Your task to perform on an android device: open app "Spotify: Music and Podcasts" (install if not already installed) Image 0: 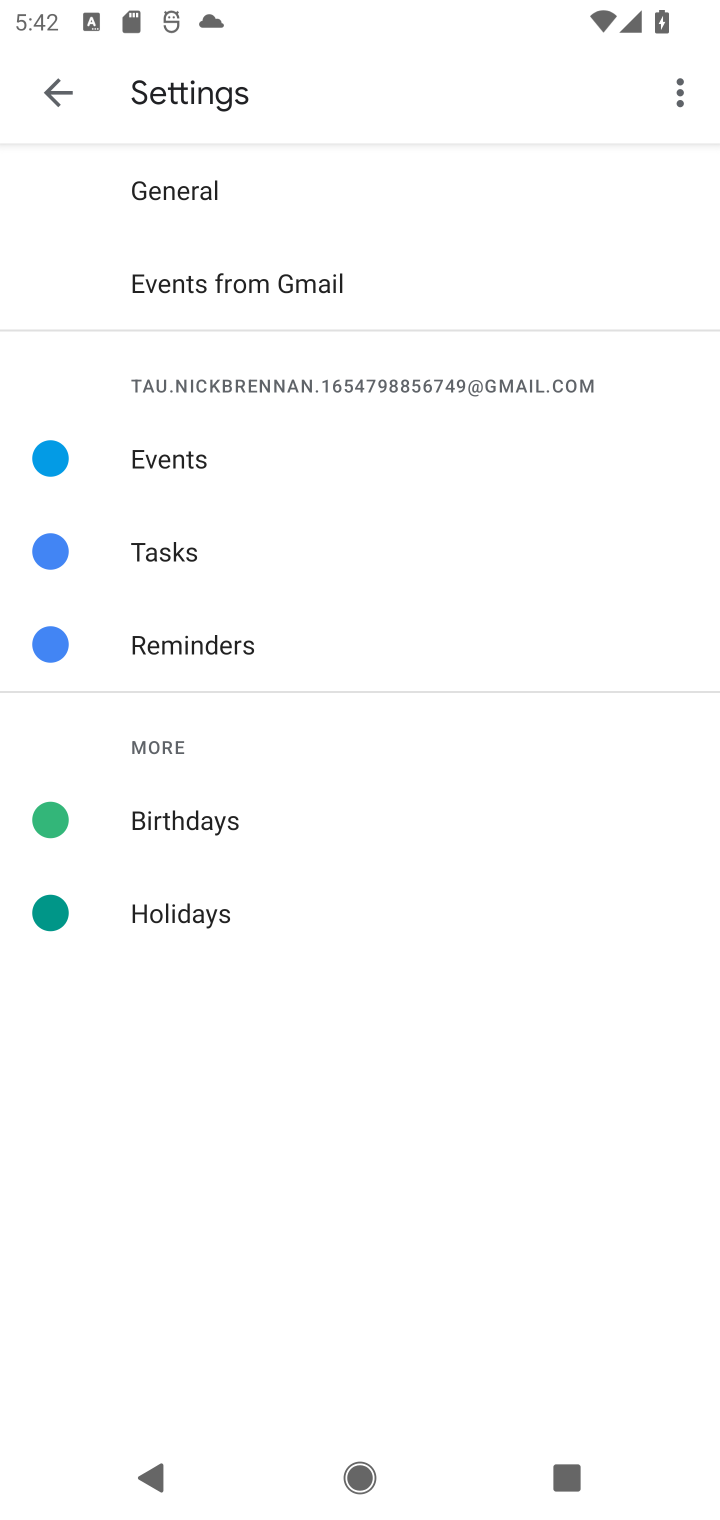
Step 0: press home button
Your task to perform on an android device: open app "Spotify: Music and Podcasts" (install if not already installed) Image 1: 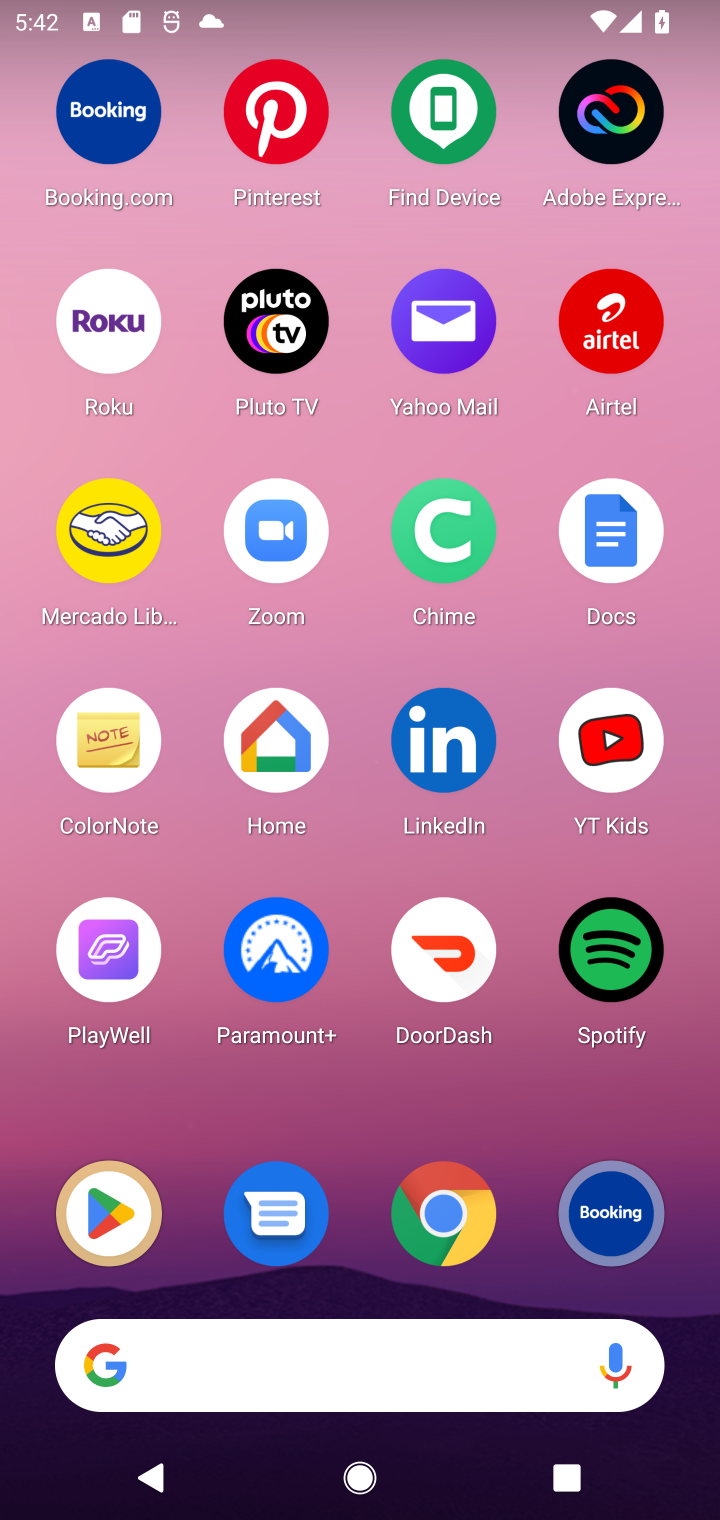
Step 1: drag from (346, 1111) to (374, 80)
Your task to perform on an android device: open app "Spotify: Music and Podcasts" (install if not already installed) Image 2: 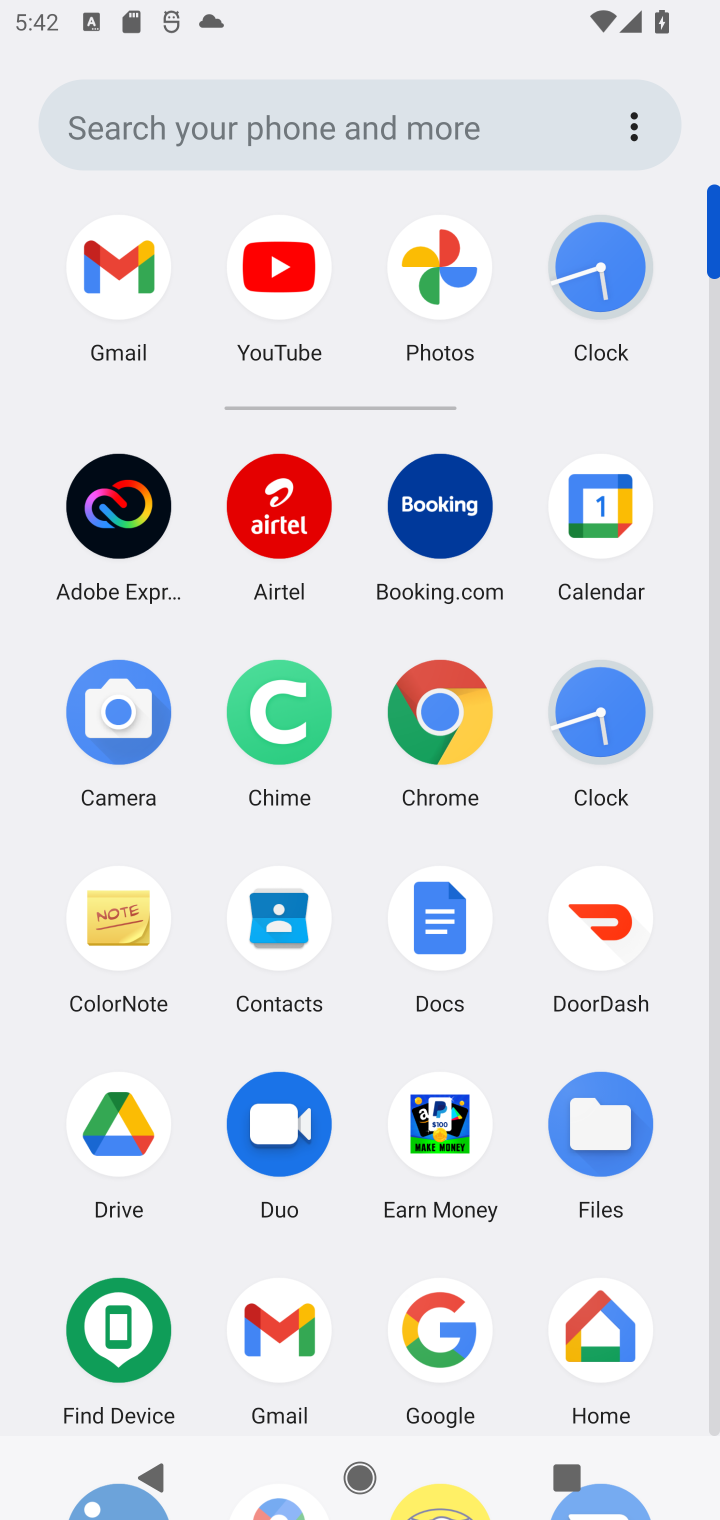
Step 2: drag from (535, 1263) to (532, 430)
Your task to perform on an android device: open app "Spotify: Music and Podcasts" (install if not already installed) Image 3: 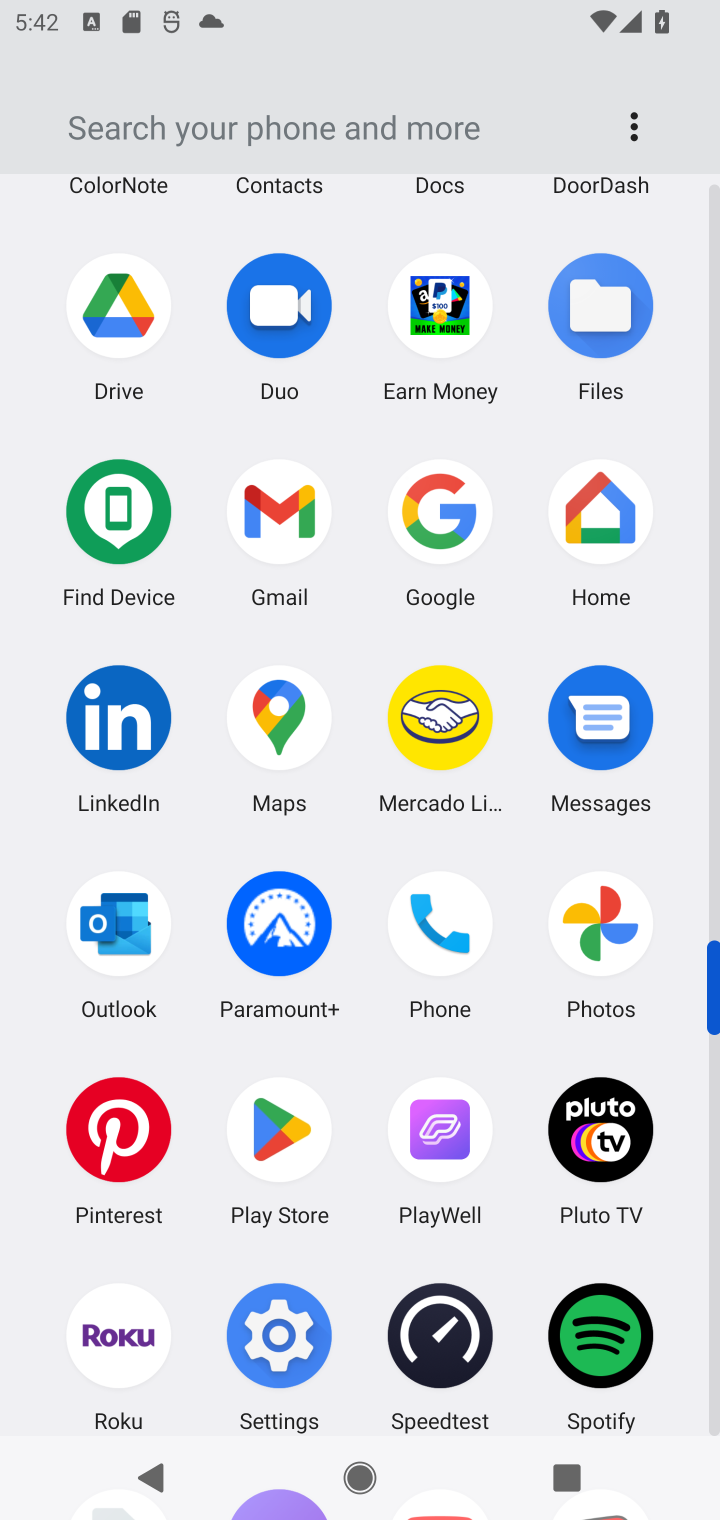
Step 3: click (292, 1165)
Your task to perform on an android device: open app "Spotify: Music and Podcasts" (install if not already installed) Image 4: 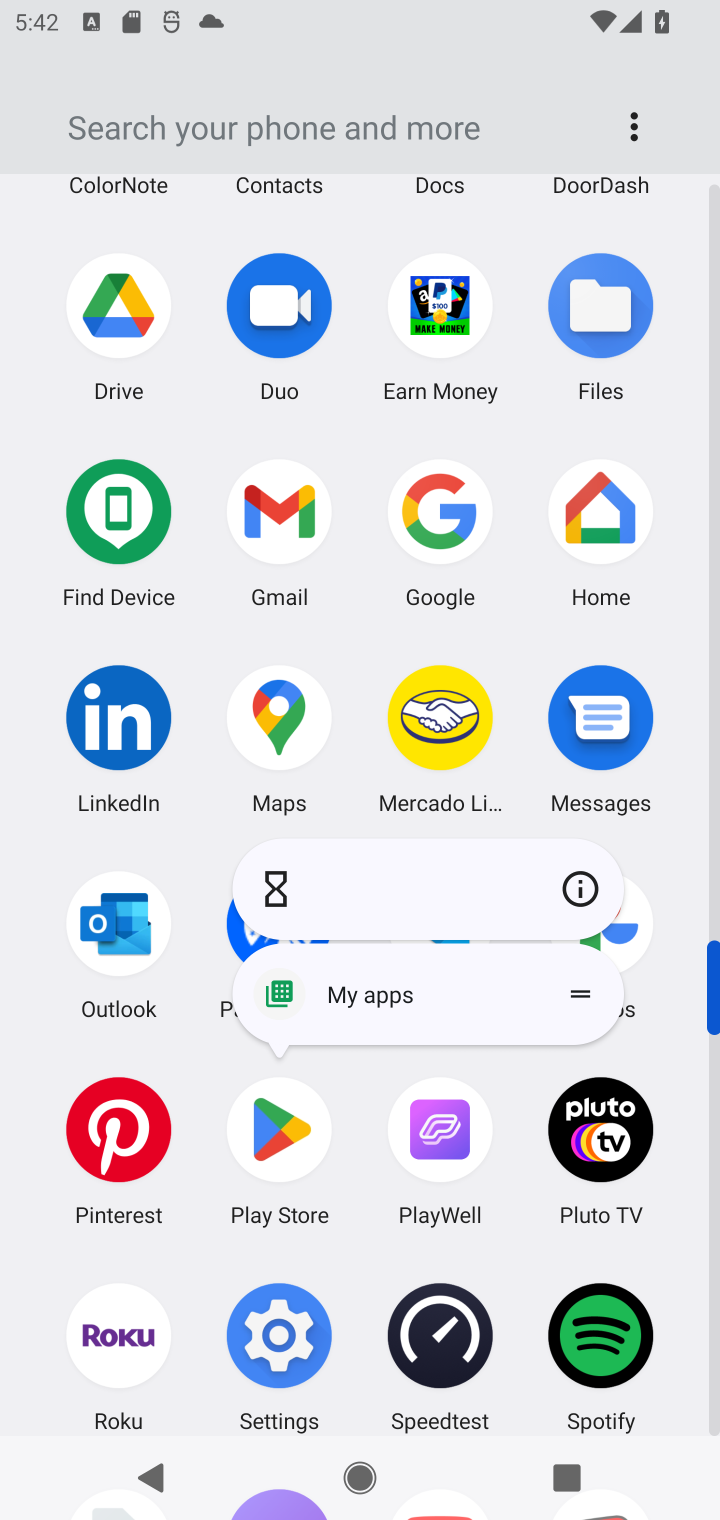
Step 4: click (290, 1147)
Your task to perform on an android device: open app "Spotify: Music and Podcasts" (install if not already installed) Image 5: 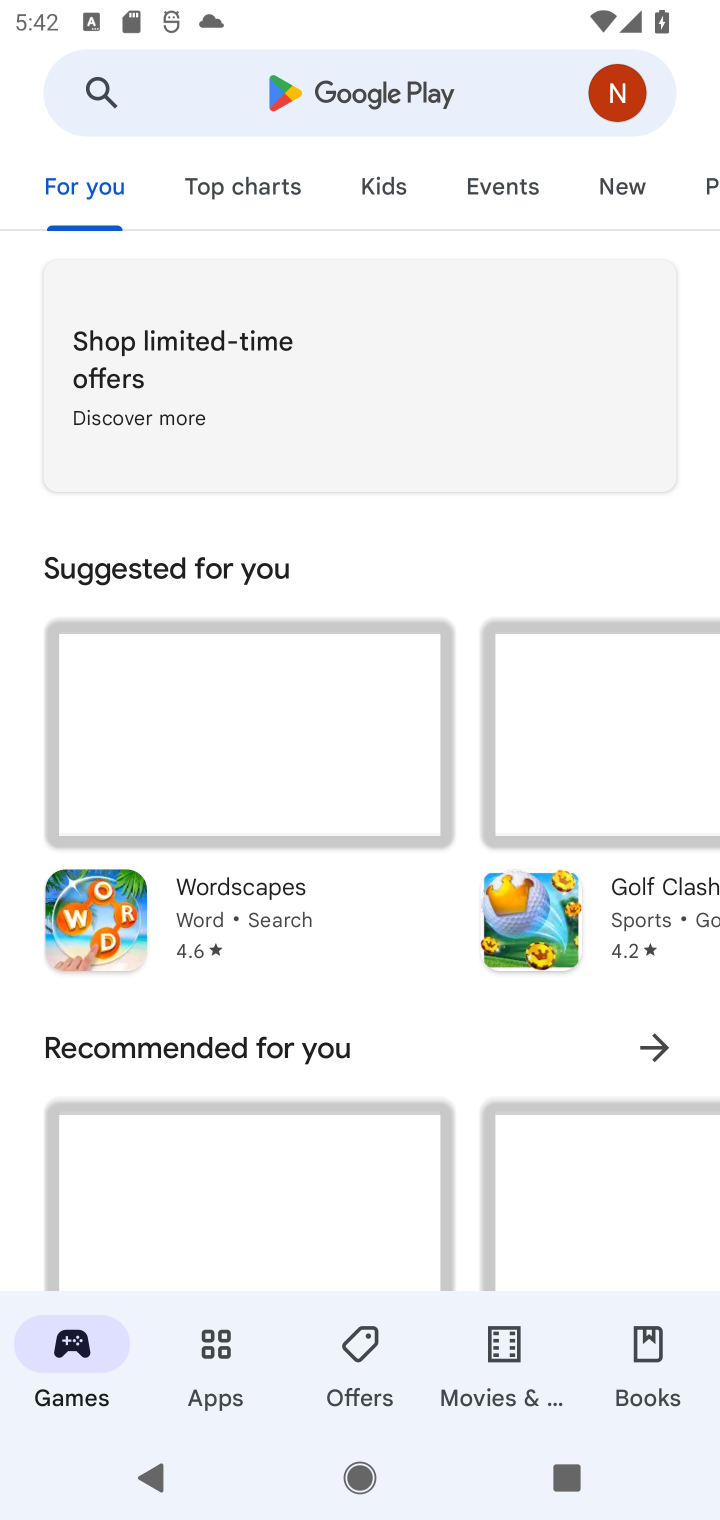
Step 5: click (371, 100)
Your task to perform on an android device: open app "Spotify: Music and Podcasts" (install if not already installed) Image 6: 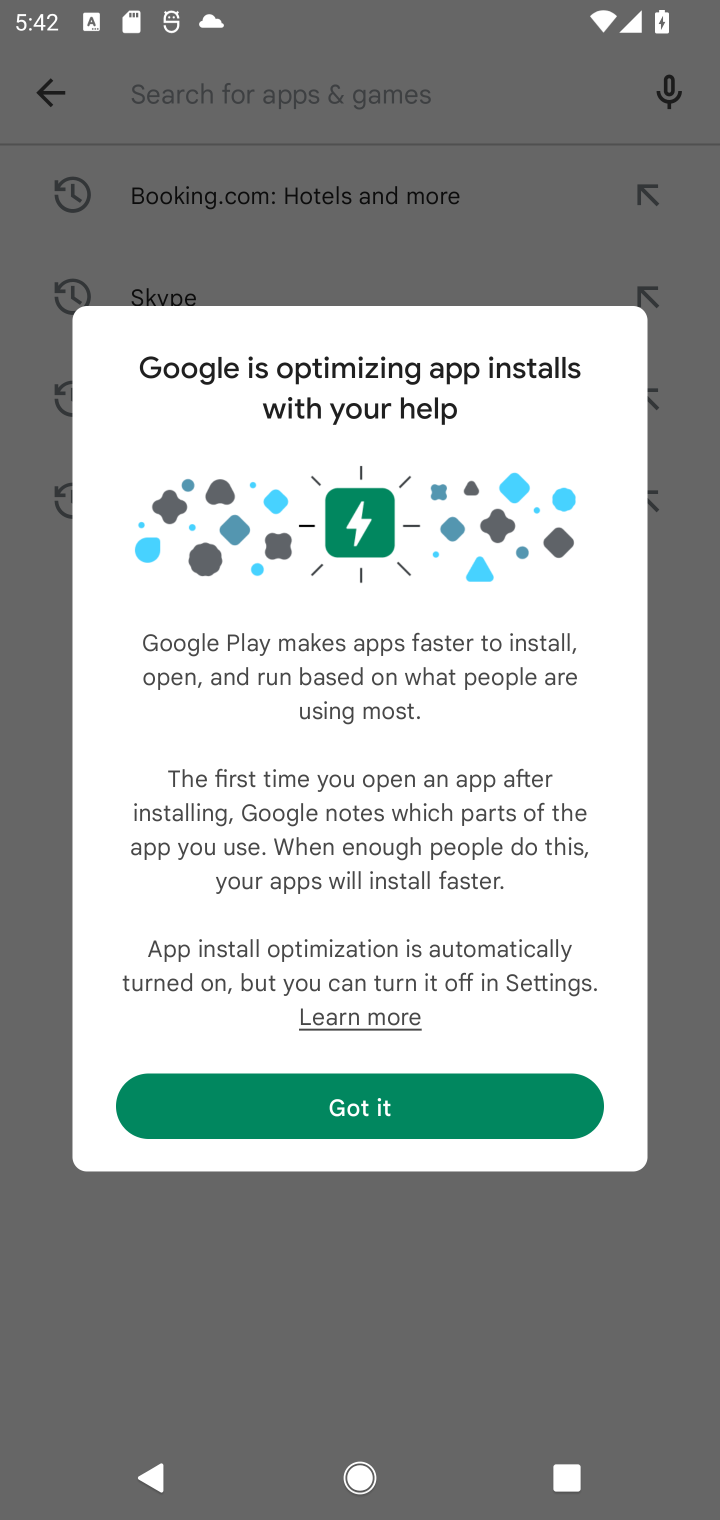
Step 6: click (412, 87)
Your task to perform on an android device: open app "Spotify: Music and Podcasts" (install if not already installed) Image 7: 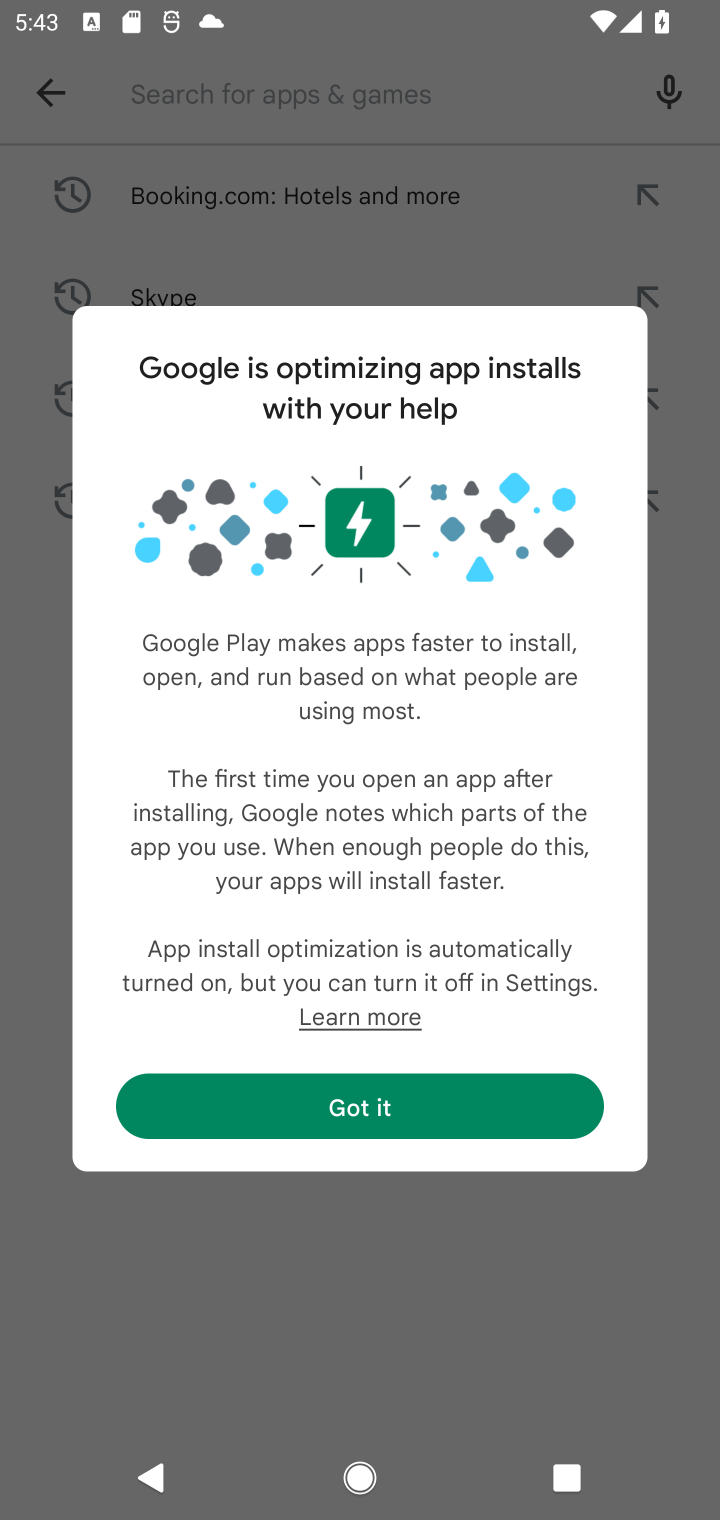
Step 7: type "Spotify: Music and Podcasts"
Your task to perform on an android device: open app "Spotify: Music and Podcasts" (install if not already installed) Image 8: 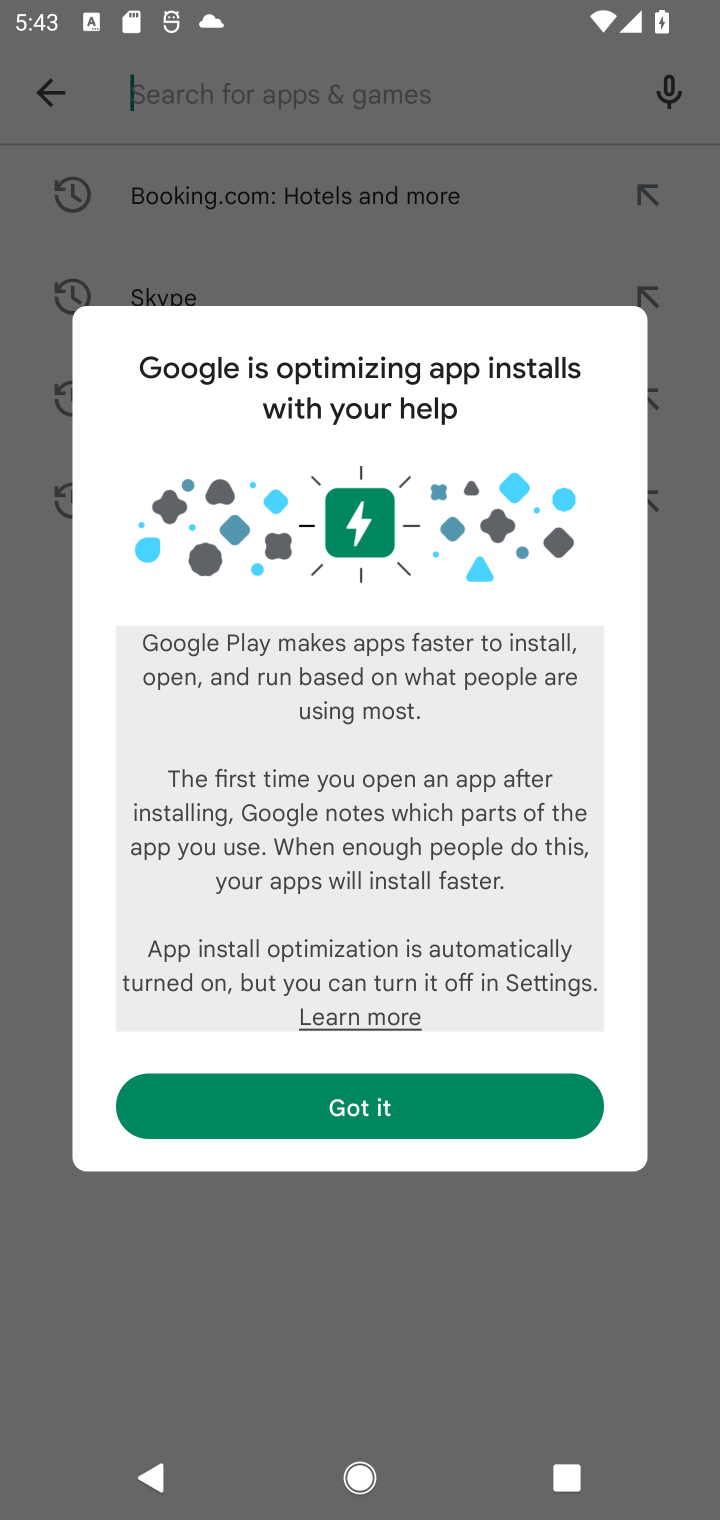
Step 8: click (433, 1135)
Your task to perform on an android device: open app "Spotify: Music and Podcasts" (install if not already installed) Image 9: 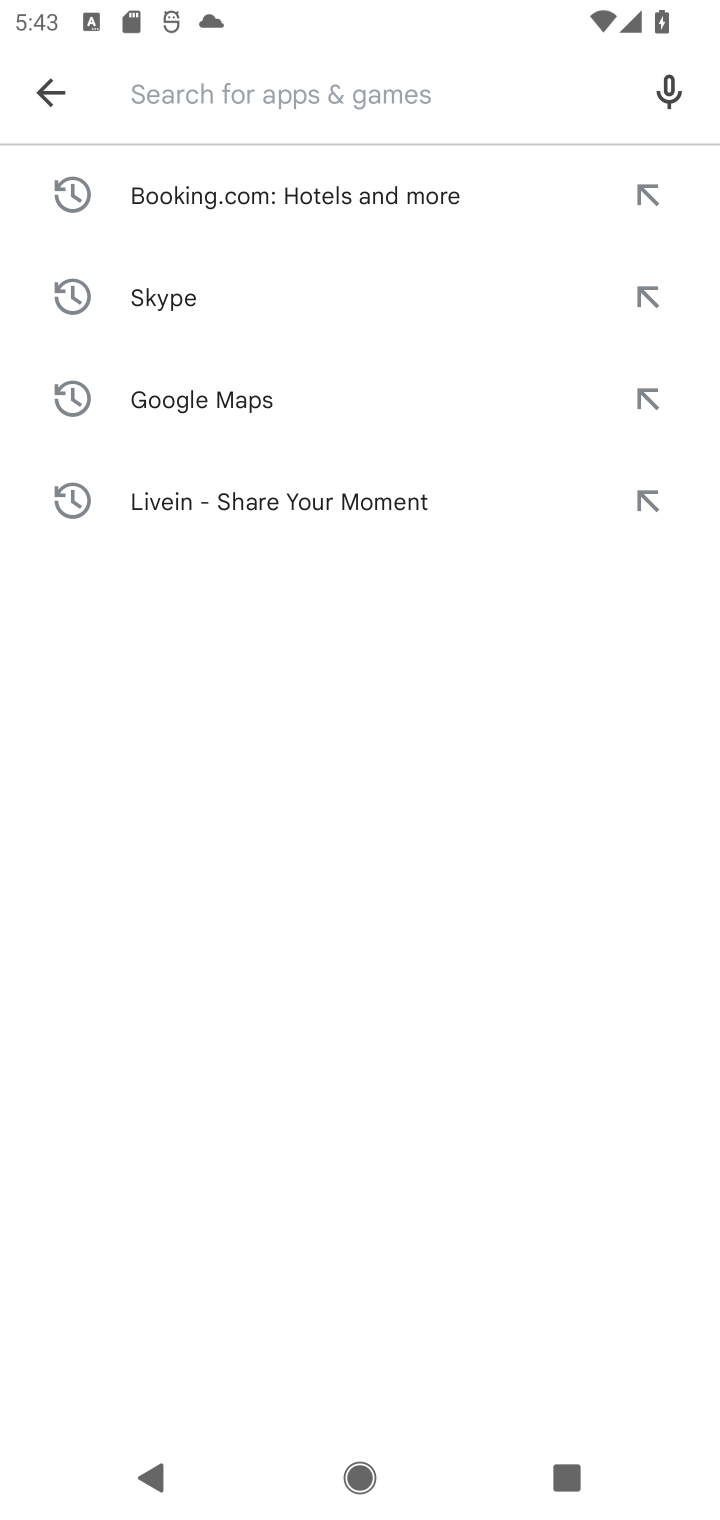
Step 9: click (375, 90)
Your task to perform on an android device: open app "Spotify: Music and Podcasts" (install if not already installed) Image 10: 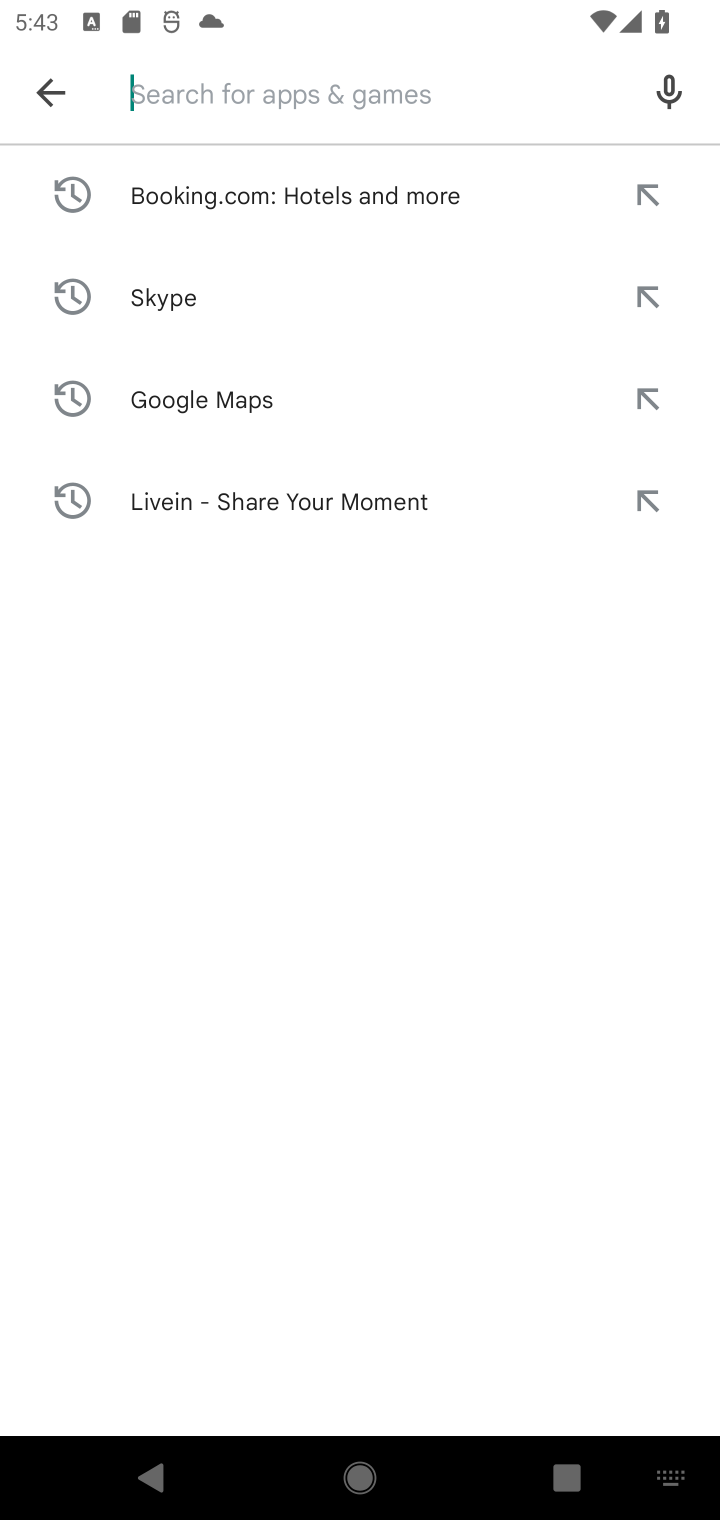
Step 10: type "Spotify: Music and Podcasts"
Your task to perform on an android device: open app "Spotify: Music and Podcasts" (install if not already installed) Image 11: 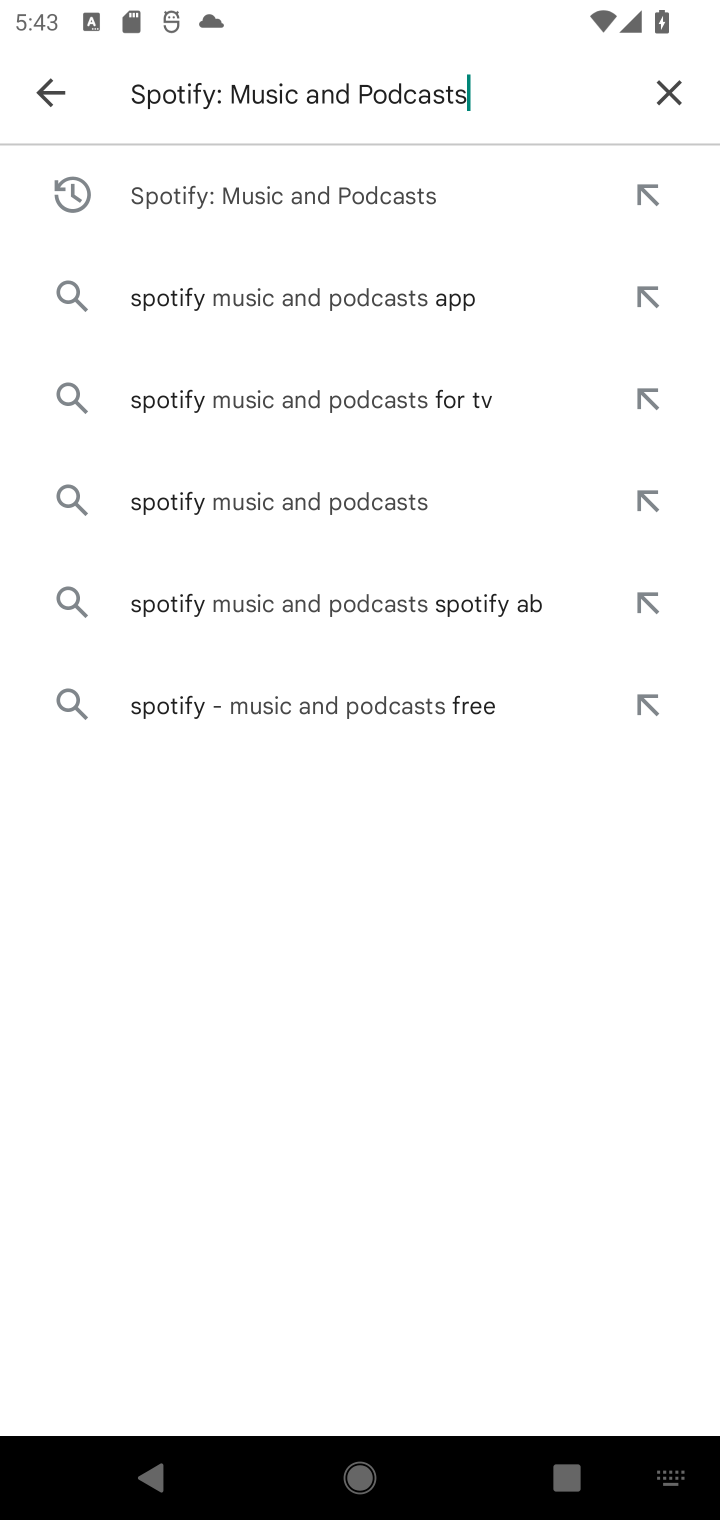
Step 11: press enter
Your task to perform on an android device: open app "Spotify: Music and Podcasts" (install if not already installed) Image 12: 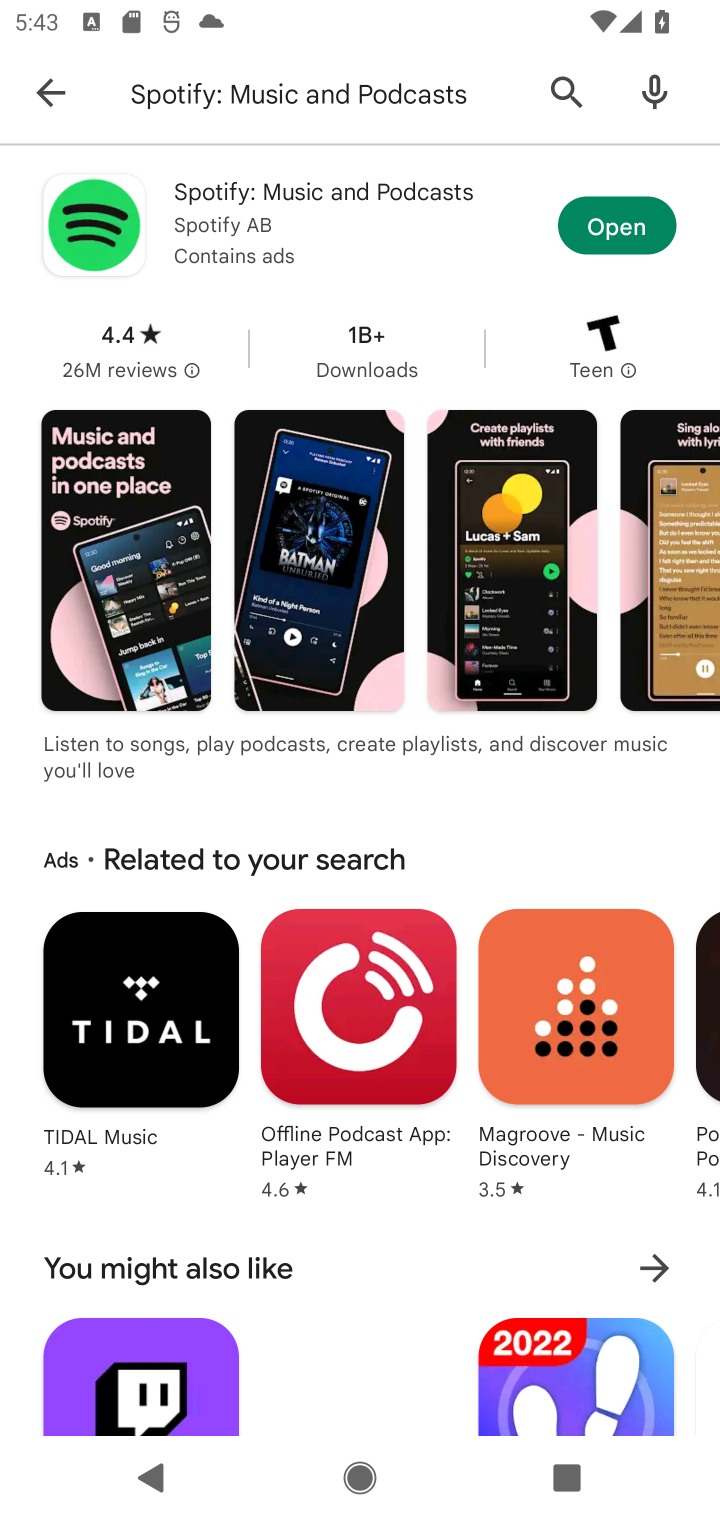
Step 12: click (648, 226)
Your task to perform on an android device: open app "Spotify: Music and Podcasts" (install if not already installed) Image 13: 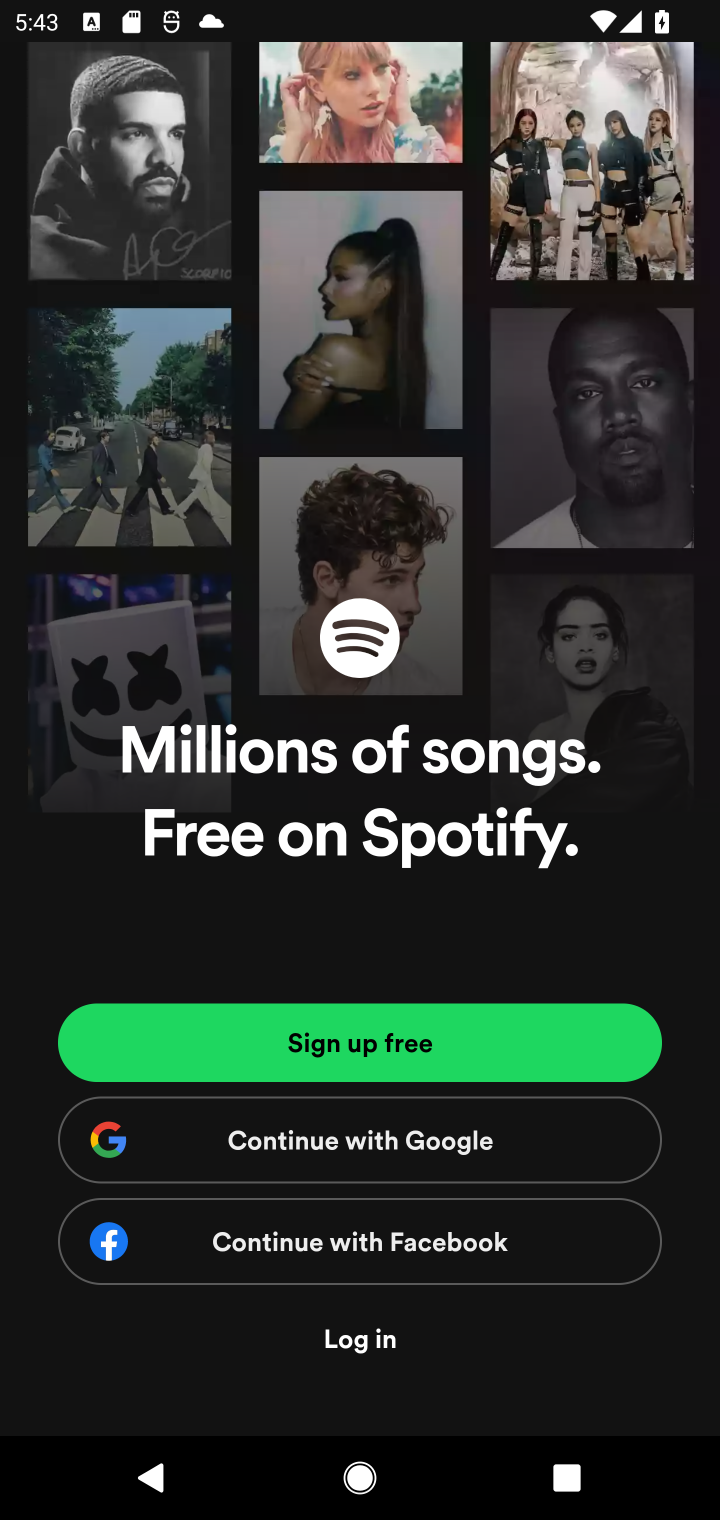
Step 13: task complete